Your task to perform on an android device: find which apps use the phone's location Image 0: 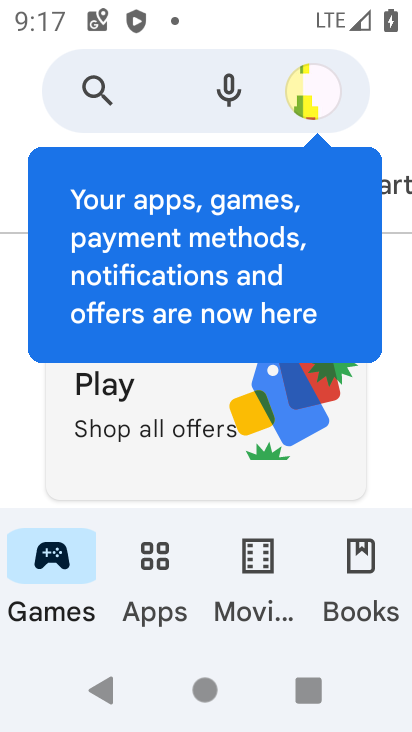
Step 0: press home button
Your task to perform on an android device: find which apps use the phone's location Image 1: 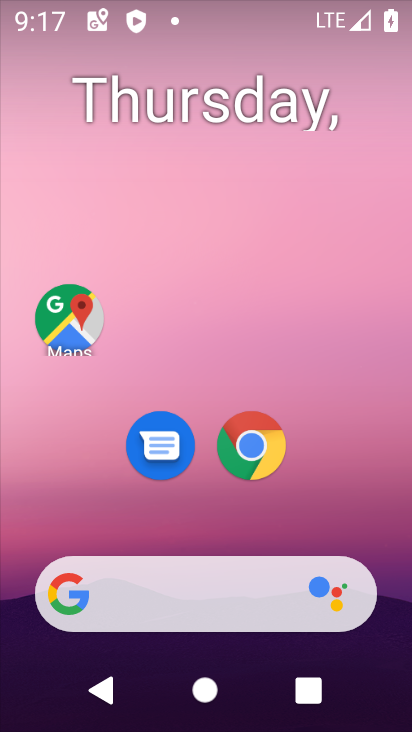
Step 1: drag from (71, 529) to (192, 128)
Your task to perform on an android device: find which apps use the phone's location Image 2: 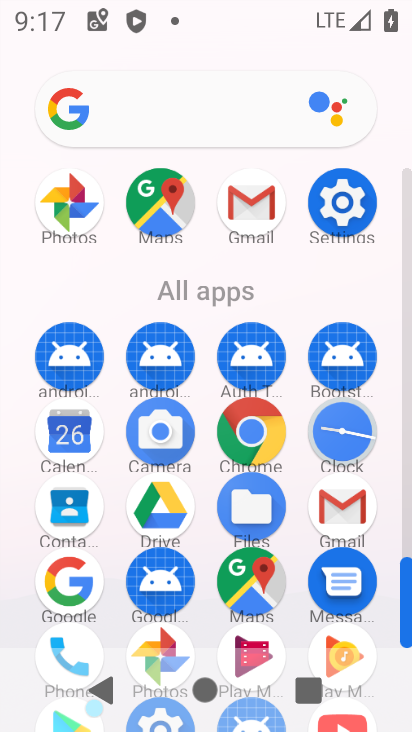
Step 2: click (355, 201)
Your task to perform on an android device: find which apps use the phone's location Image 3: 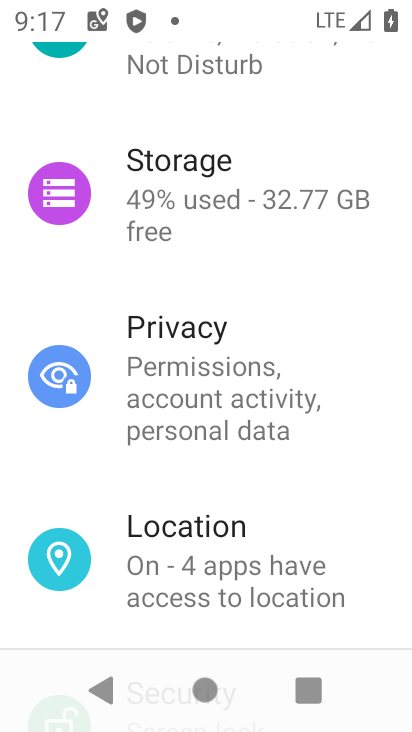
Step 3: click (221, 575)
Your task to perform on an android device: find which apps use the phone's location Image 4: 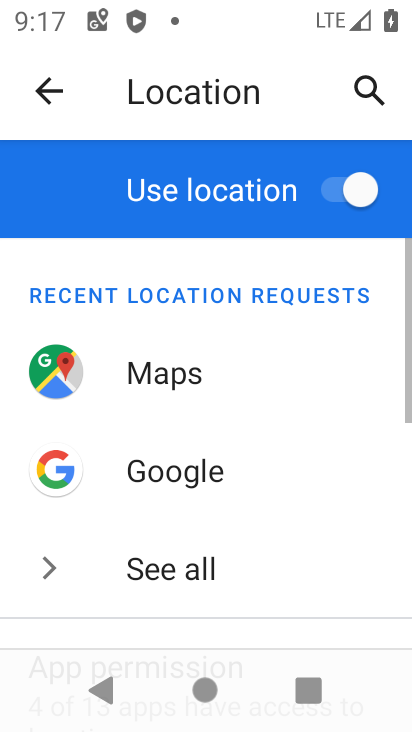
Step 4: drag from (157, 576) to (248, 258)
Your task to perform on an android device: find which apps use the phone's location Image 5: 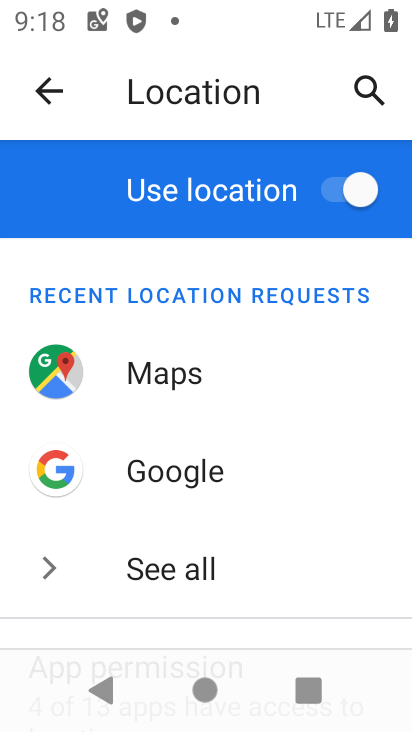
Step 5: drag from (162, 608) to (258, 256)
Your task to perform on an android device: find which apps use the phone's location Image 6: 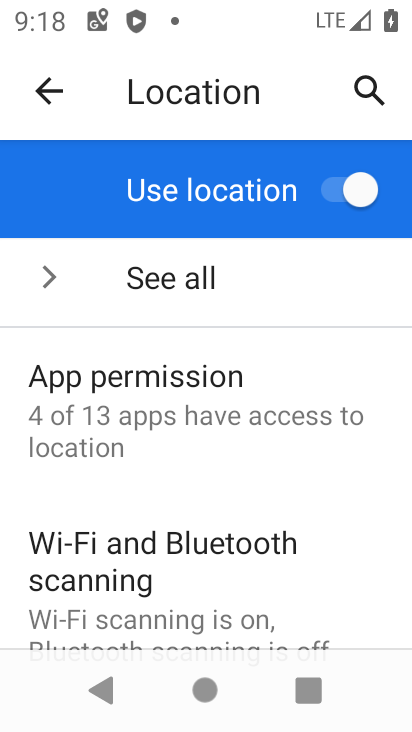
Step 6: click (226, 434)
Your task to perform on an android device: find which apps use the phone's location Image 7: 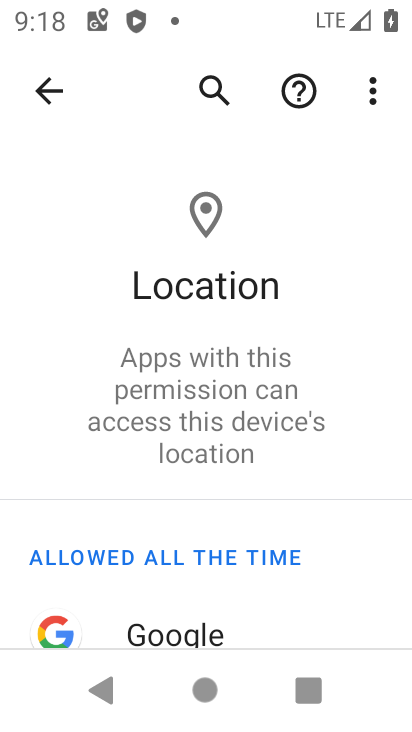
Step 7: task complete